Your task to perform on an android device: open app "YouTube Kids" (install if not already installed) Image 0: 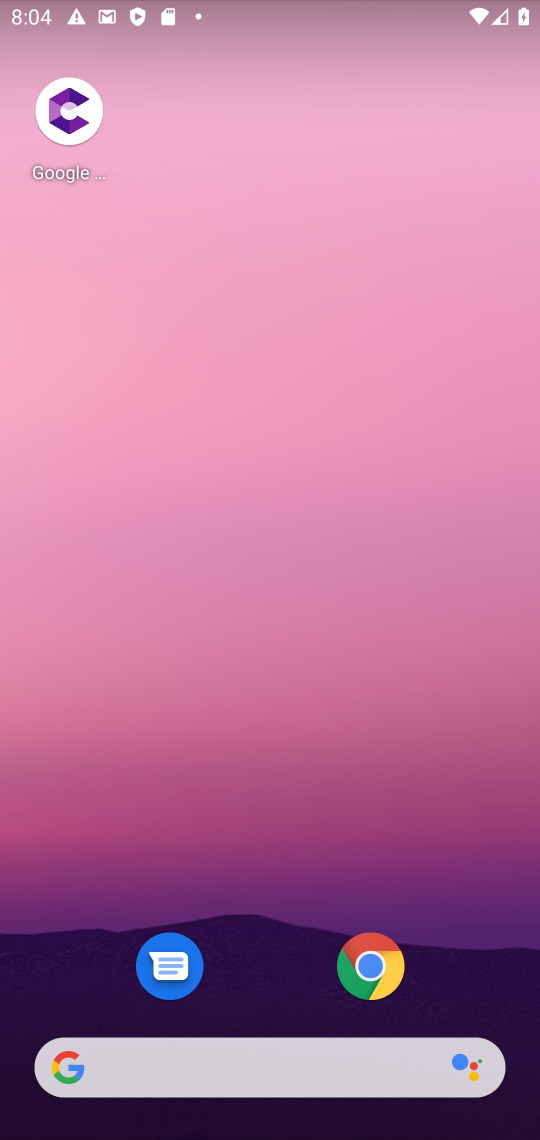
Step 0: drag from (465, 914) to (445, 300)
Your task to perform on an android device: open app "YouTube Kids" (install if not already installed) Image 1: 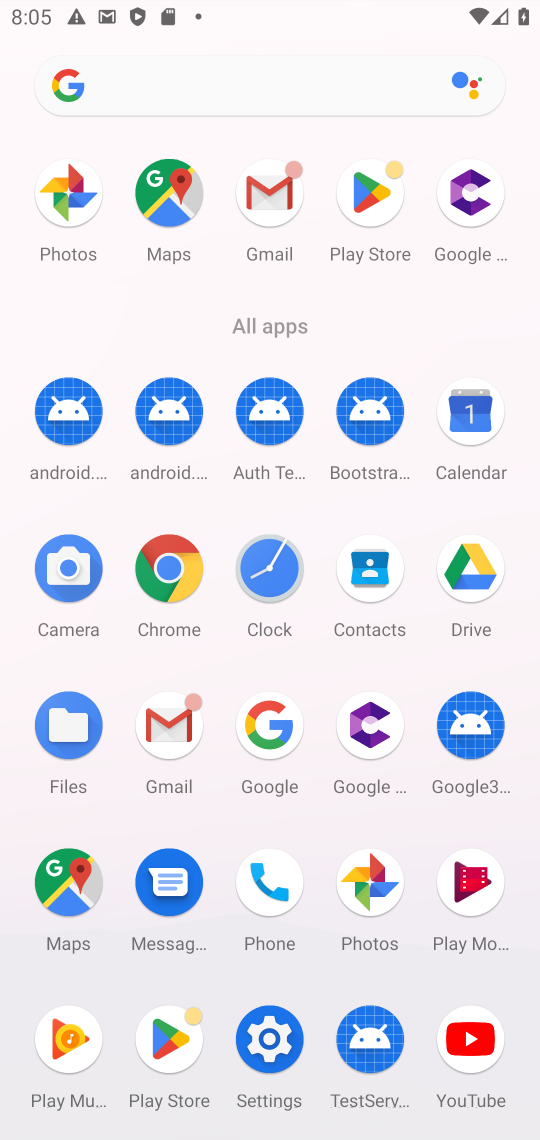
Step 1: drag from (166, 1022) to (203, 772)
Your task to perform on an android device: open app "YouTube Kids" (install if not already installed) Image 2: 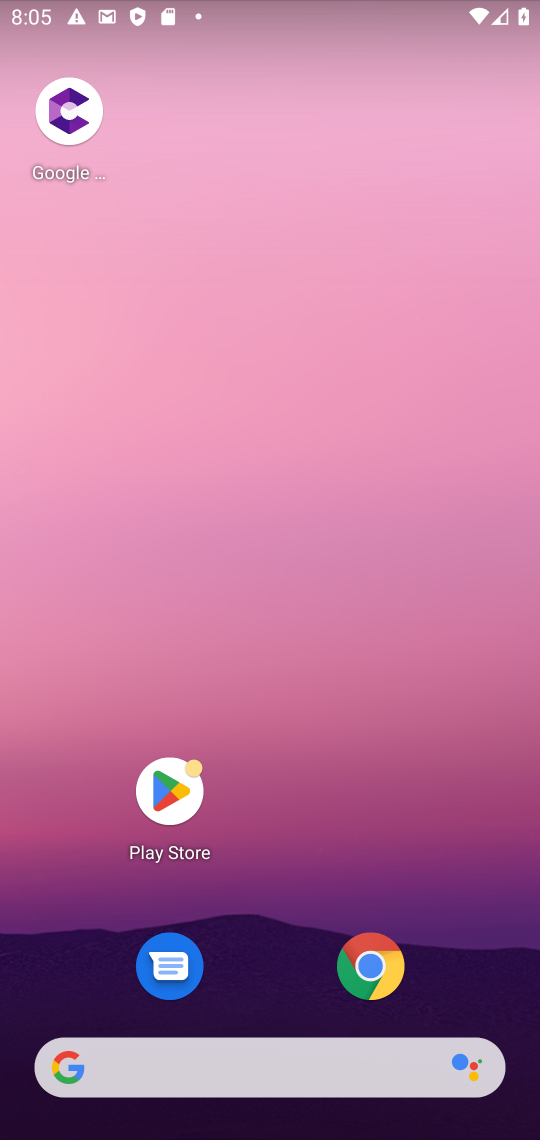
Step 2: click (158, 770)
Your task to perform on an android device: open app "YouTube Kids" (install if not already installed) Image 3: 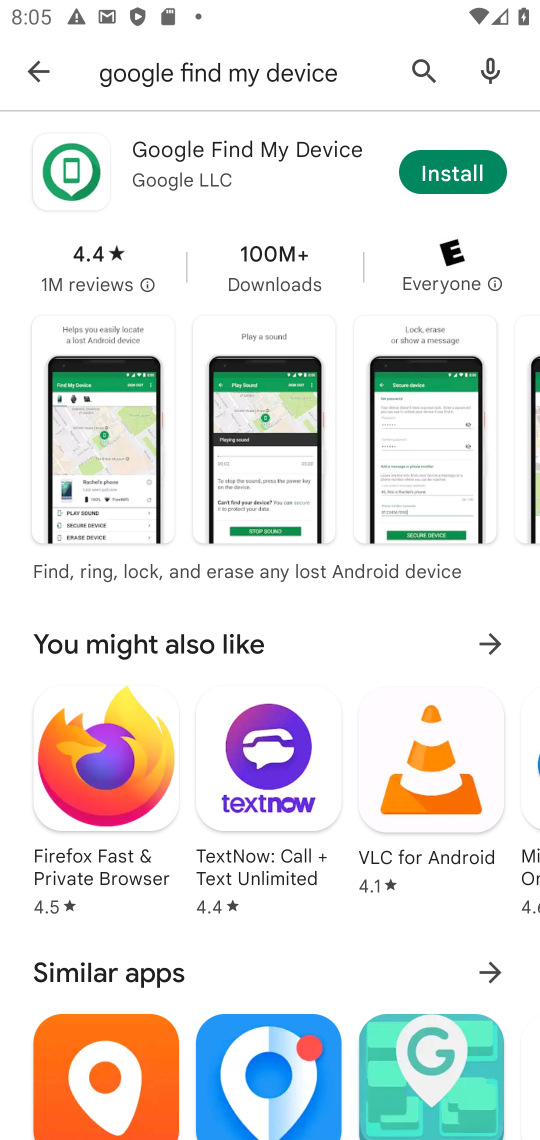
Step 3: click (412, 62)
Your task to perform on an android device: open app "YouTube Kids" (install if not already installed) Image 4: 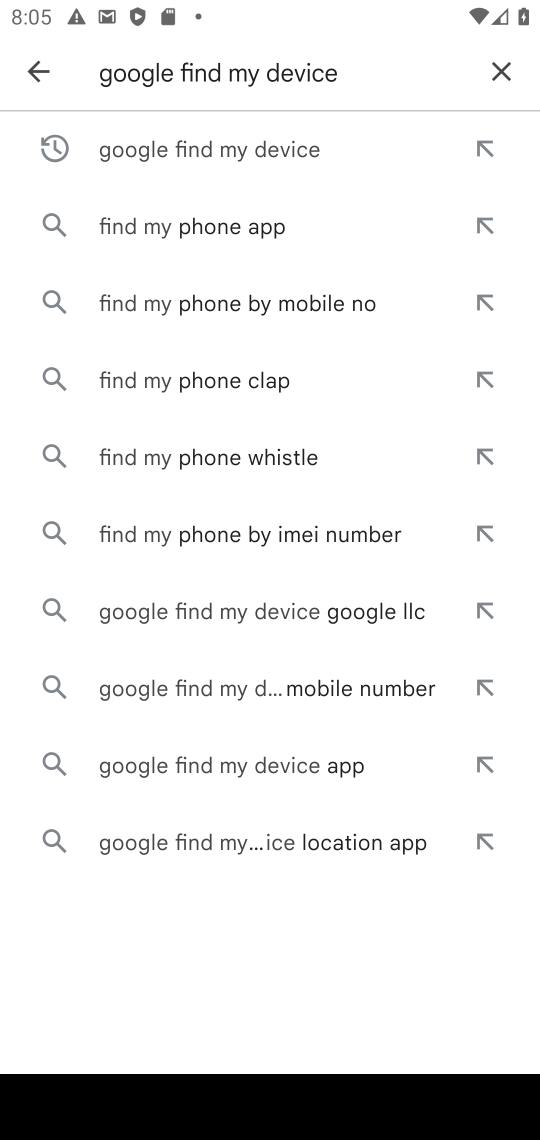
Step 4: click (496, 73)
Your task to perform on an android device: open app "YouTube Kids" (install if not already installed) Image 5: 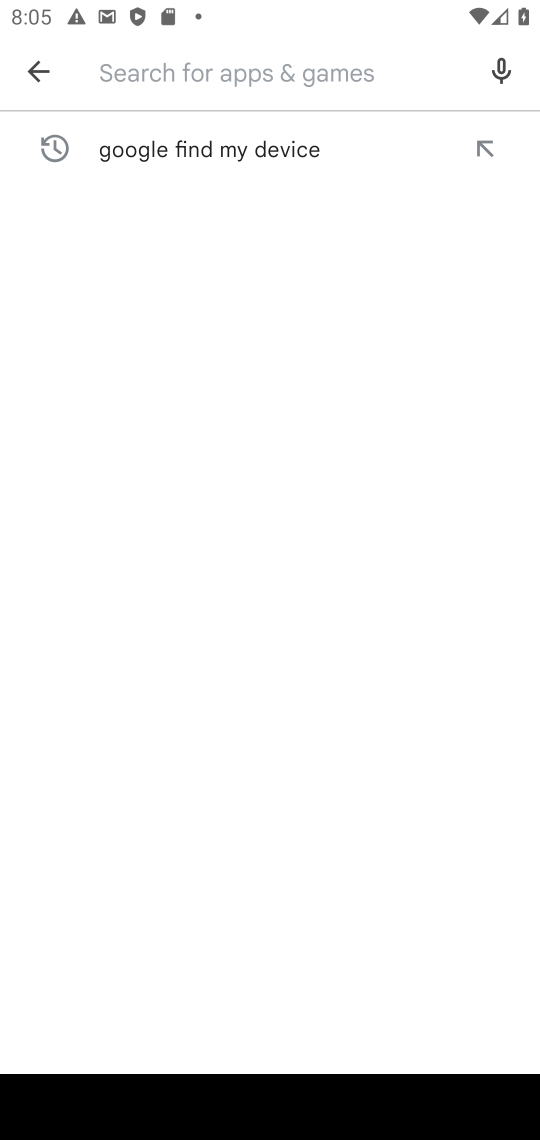
Step 5: type "YouTube Kids"
Your task to perform on an android device: open app "YouTube Kids" (install if not already installed) Image 6: 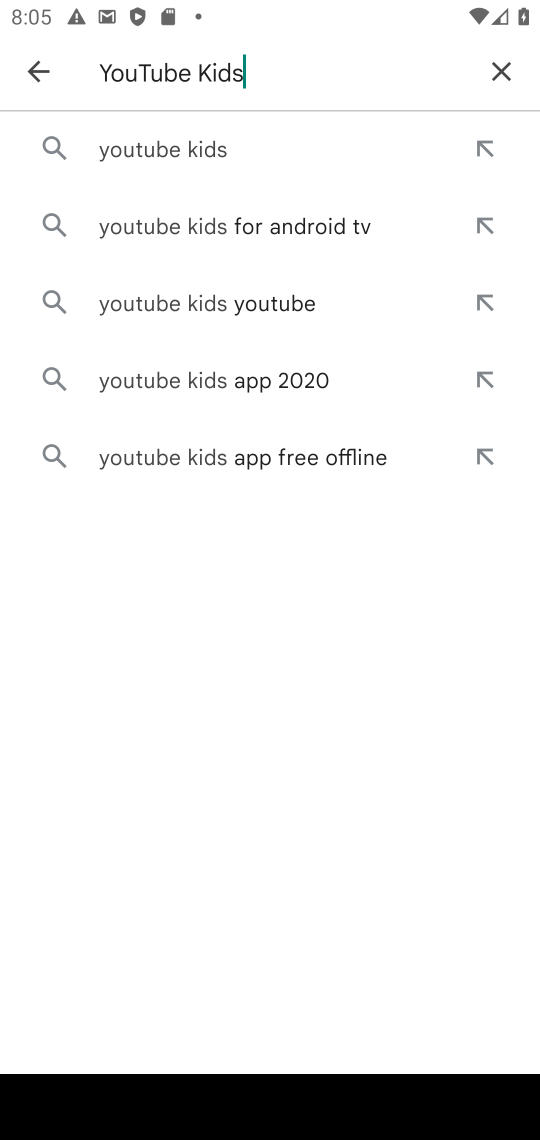
Step 6: click (211, 138)
Your task to perform on an android device: open app "YouTube Kids" (install if not already installed) Image 7: 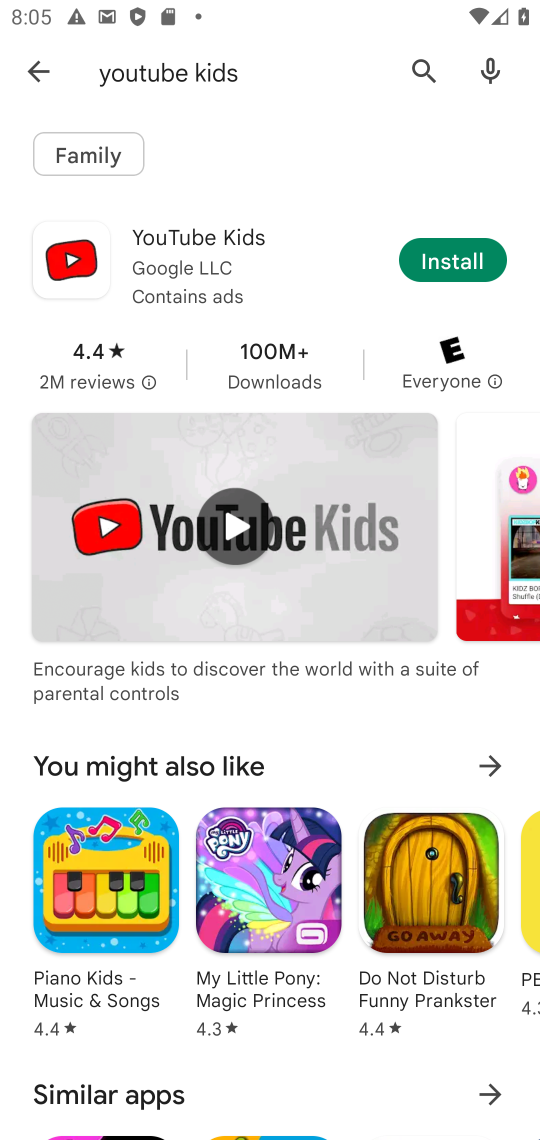
Step 7: click (431, 254)
Your task to perform on an android device: open app "YouTube Kids" (install if not already installed) Image 8: 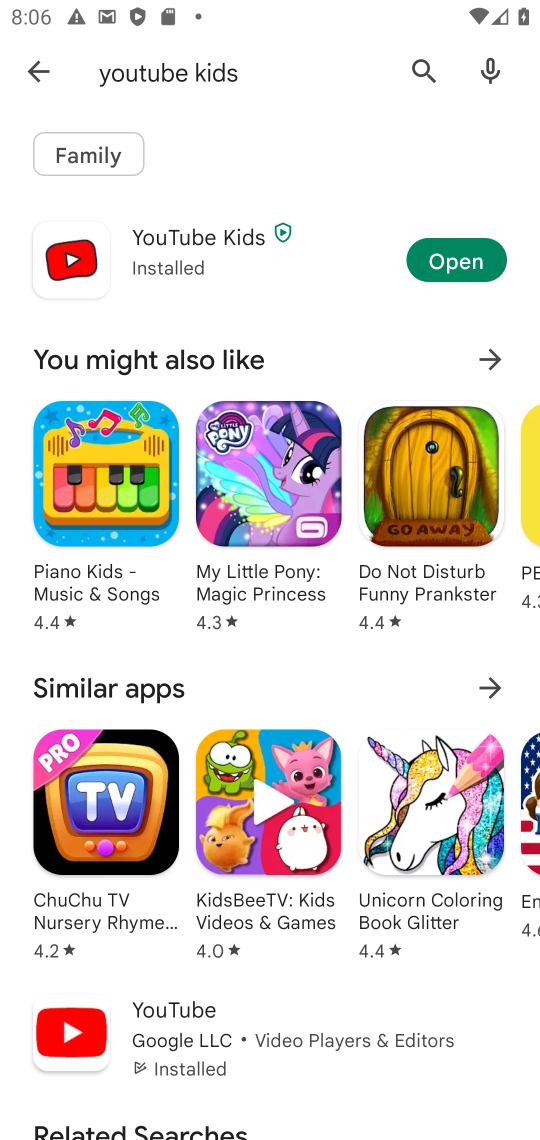
Step 8: click (447, 250)
Your task to perform on an android device: open app "YouTube Kids" (install if not already installed) Image 9: 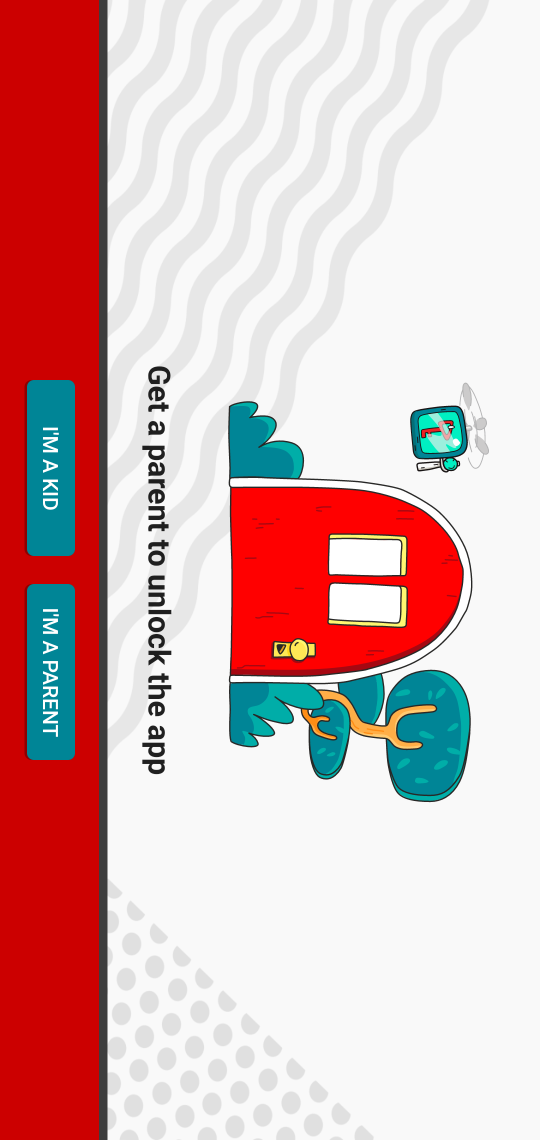
Step 9: task complete